Your task to perform on an android device: Play the latest video from the Huffington Post Image 0: 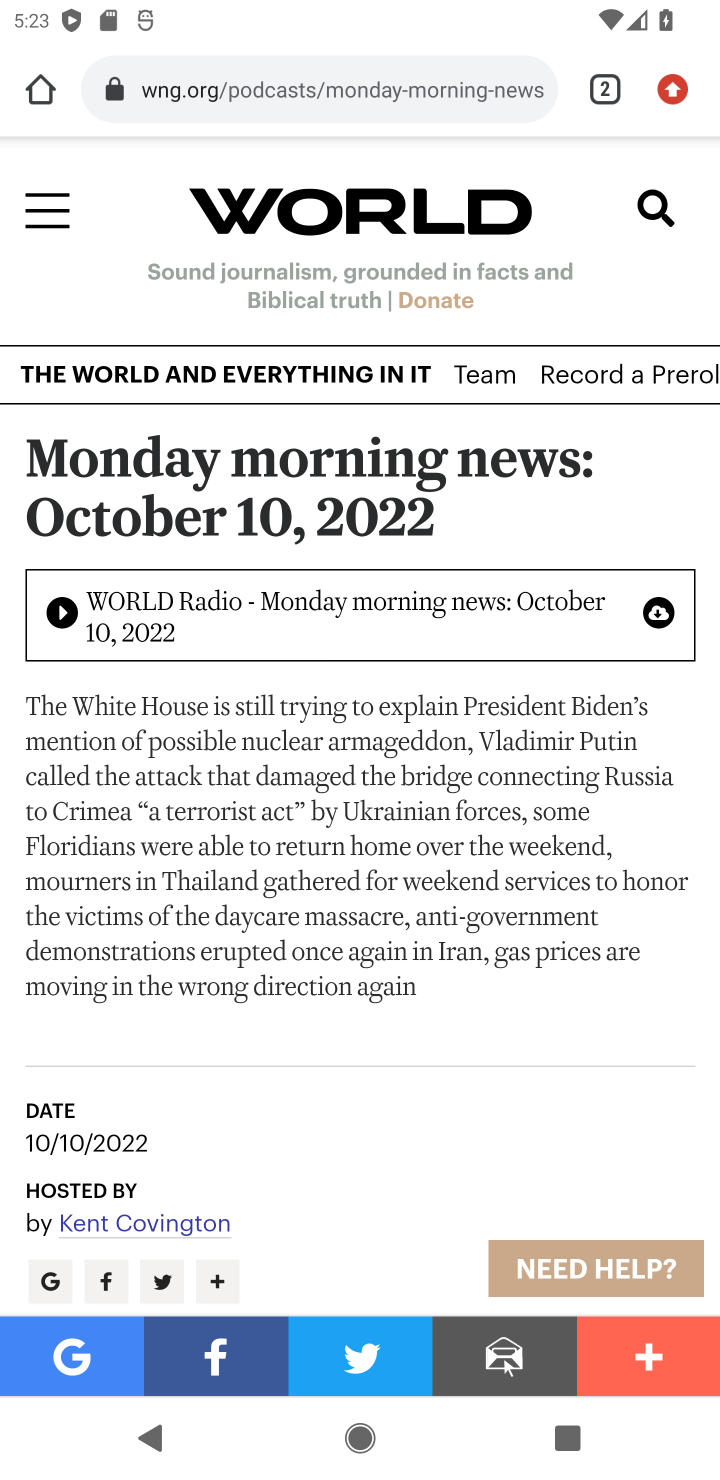
Step 0: press home button
Your task to perform on an android device: Play the latest video from the Huffington Post Image 1: 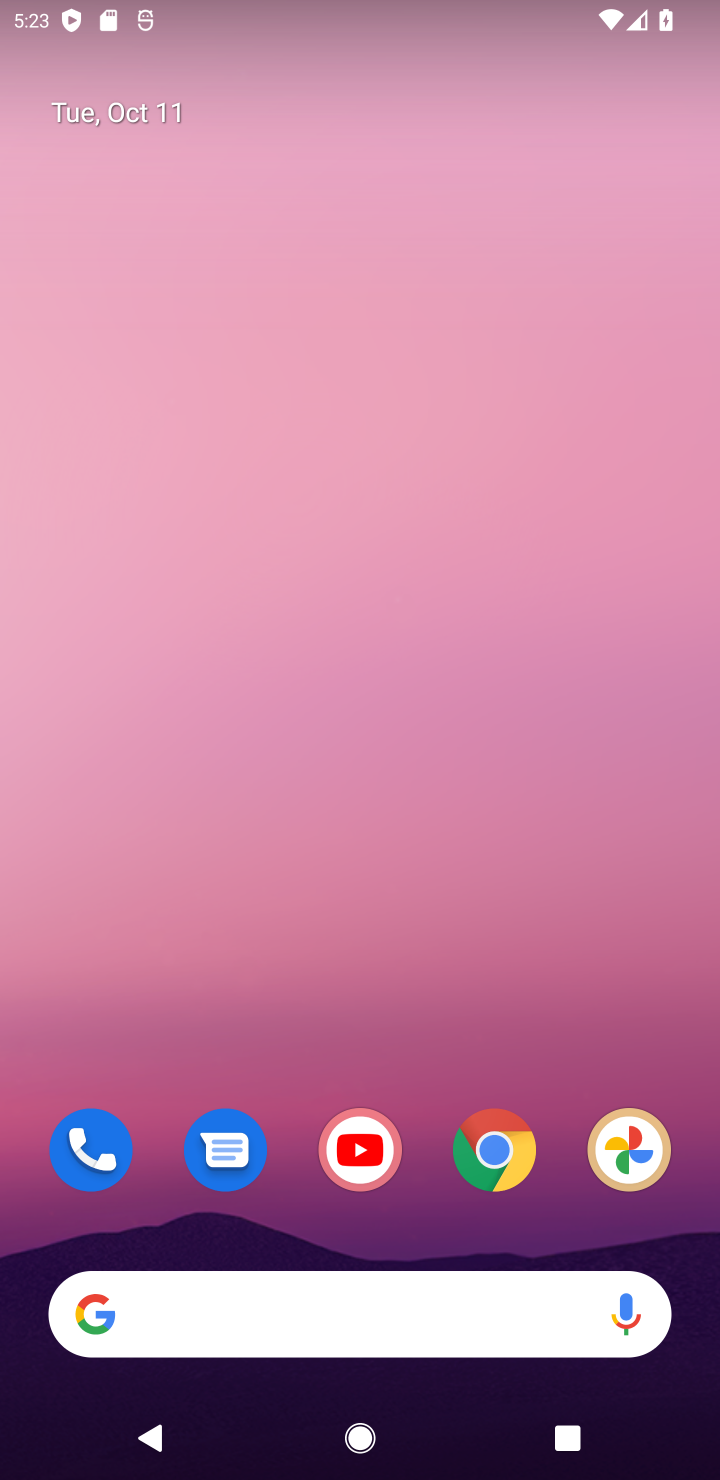
Step 1: click (362, 1157)
Your task to perform on an android device: Play the latest video from the Huffington Post Image 2: 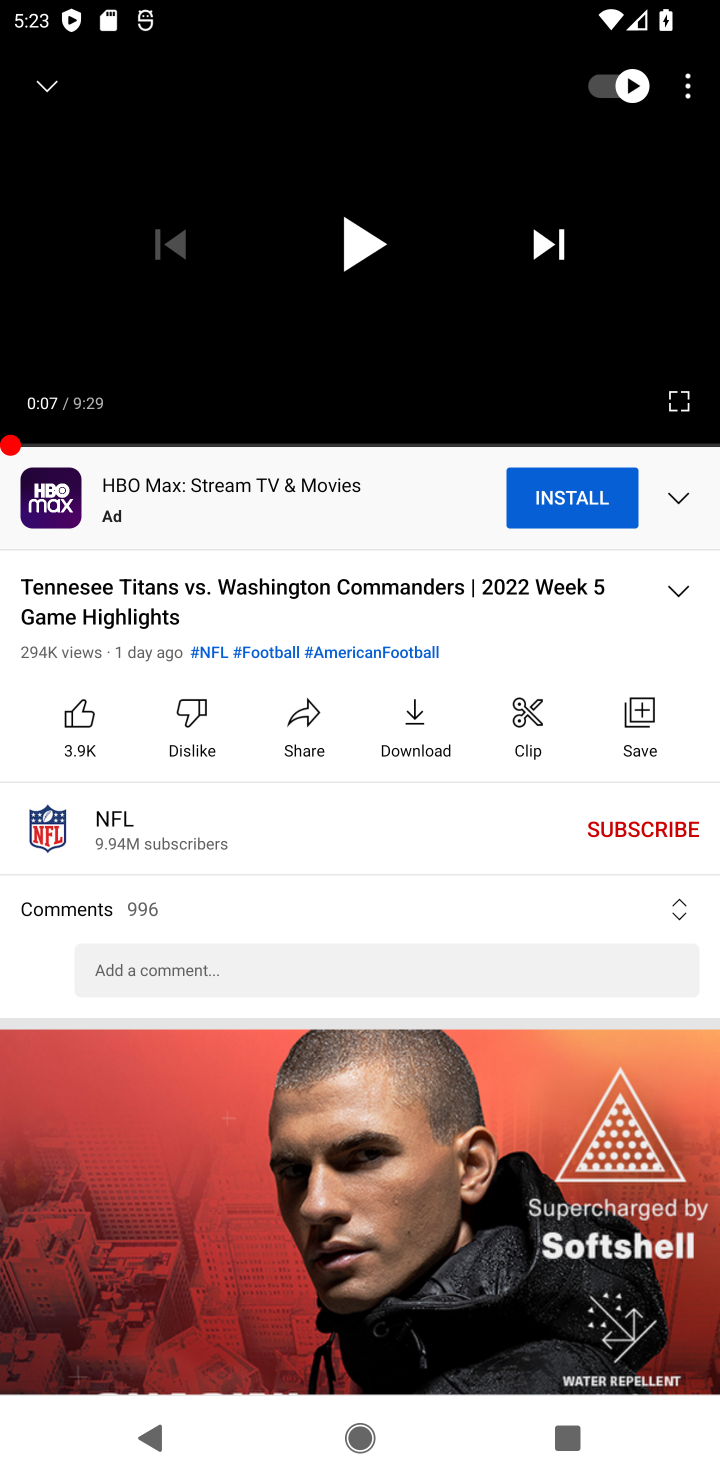
Step 2: click (28, 107)
Your task to perform on an android device: Play the latest video from the Huffington Post Image 3: 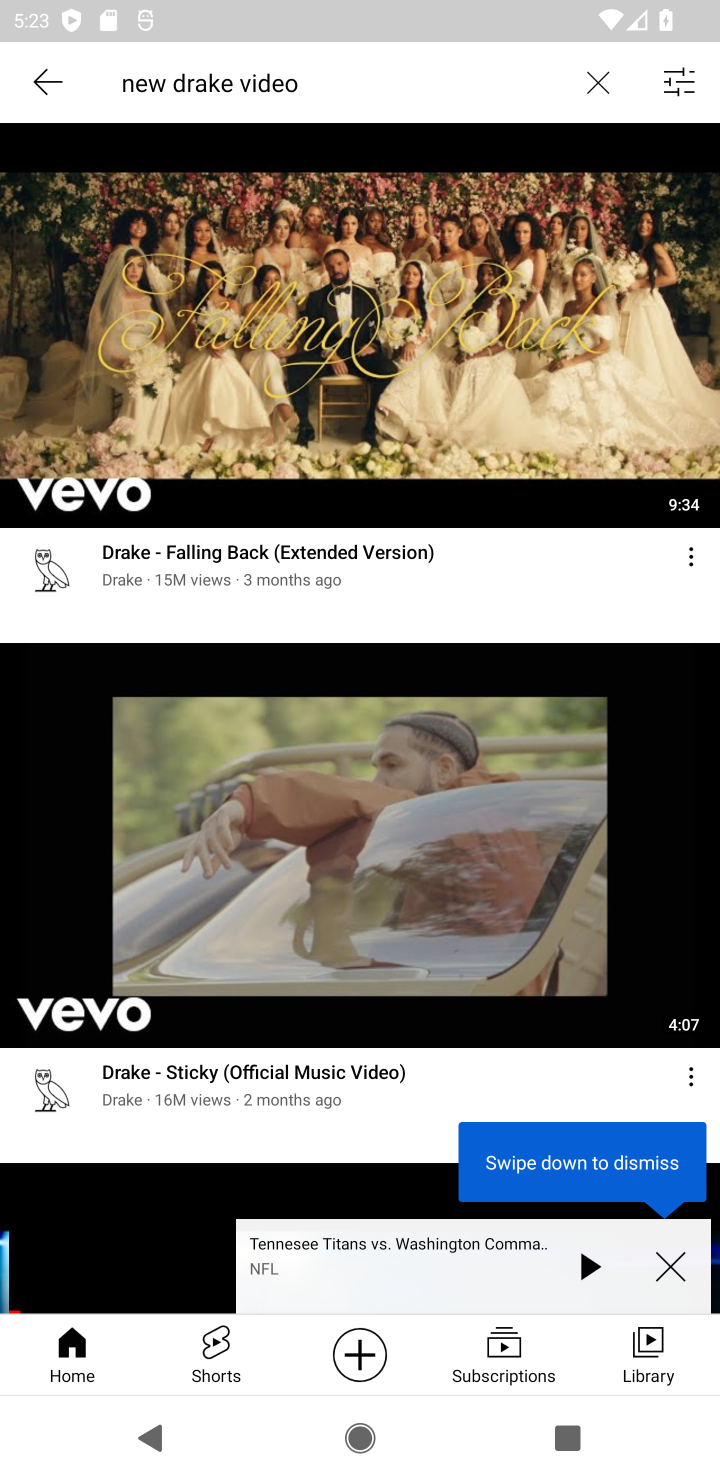
Step 3: click (584, 75)
Your task to perform on an android device: Play the latest video from the Huffington Post Image 4: 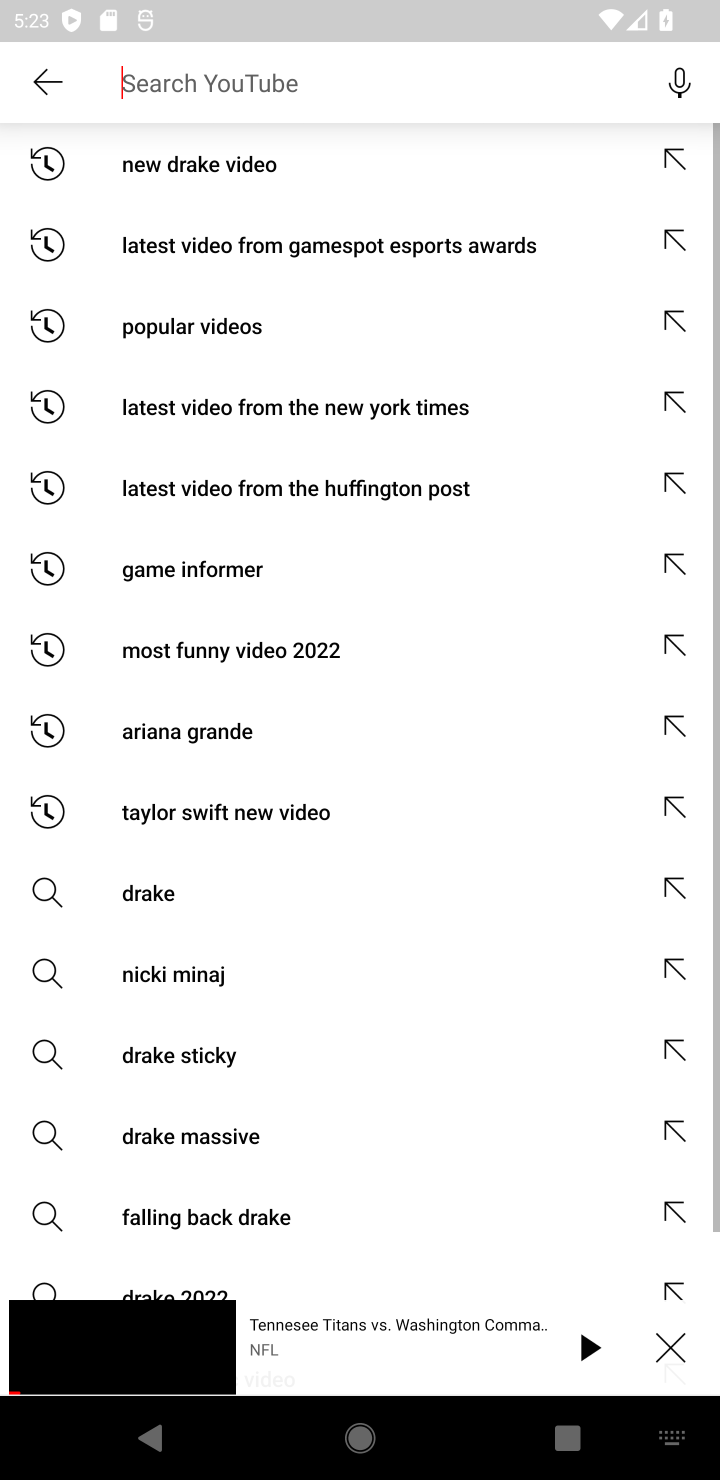
Step 4: click (281, 81)
Your task to perform on an android device: Play the latest video from the Huffington Post Image 5: 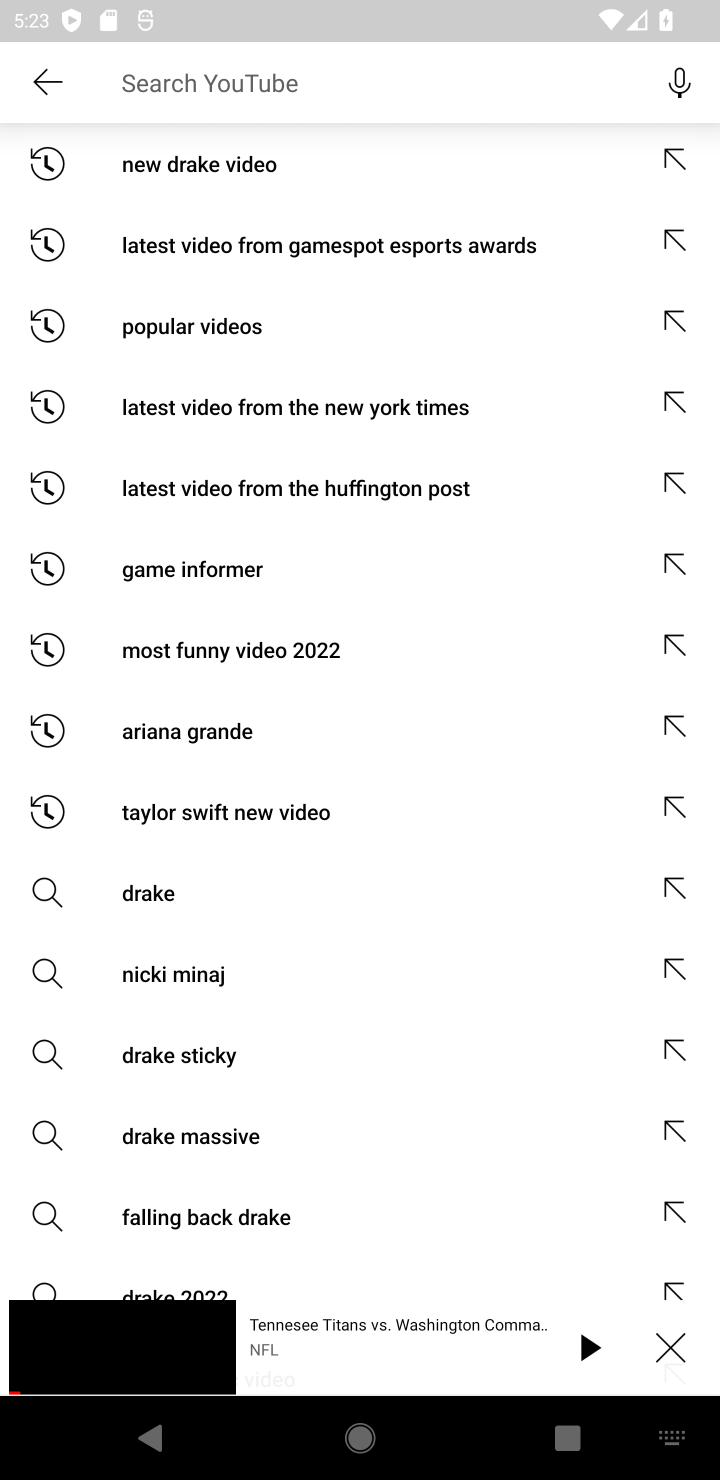
Step 5: type " latest video from the Huffington Post"
Your task to perform on an android device: Play the latest video from the Huffington Post Image 6: 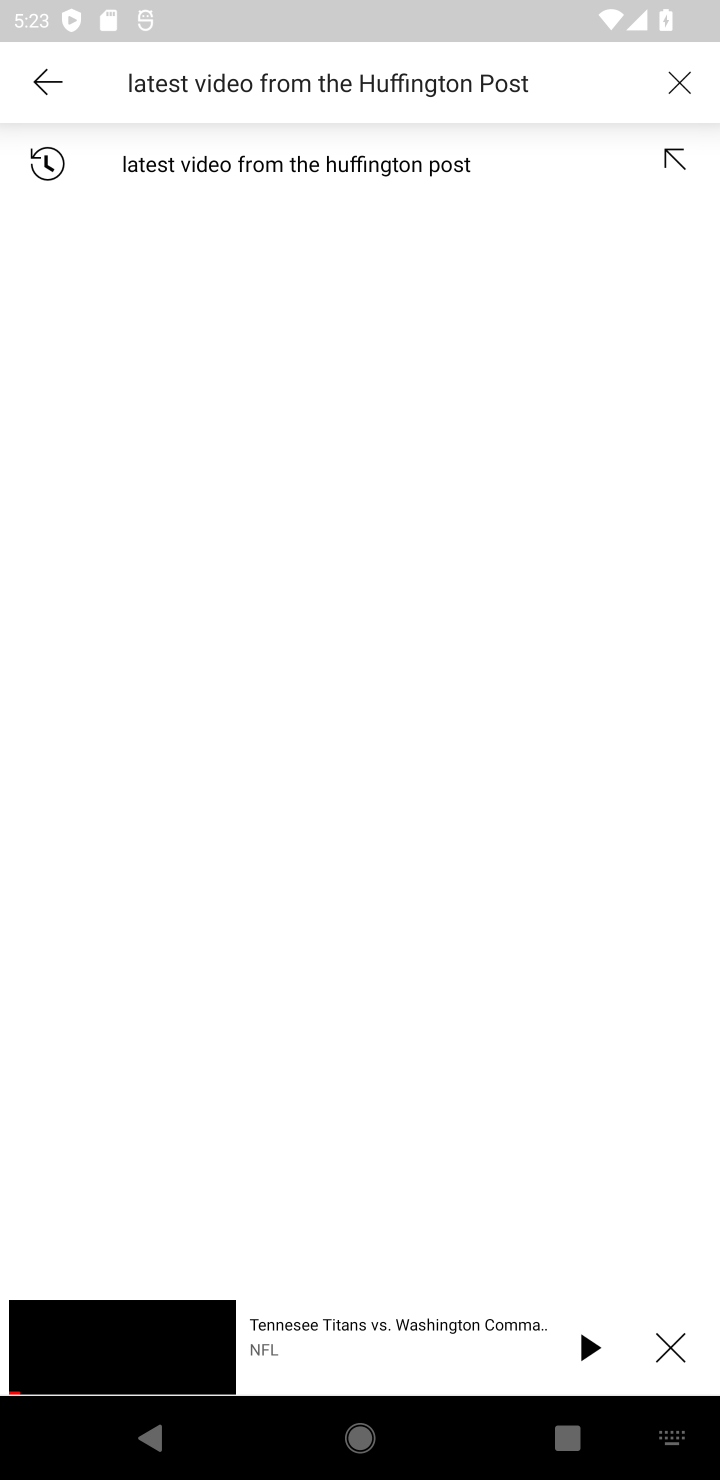
Step 6: click (240, 164)
Your task to perform on an android device: Play the latest video from the Huffington Post Image 7: 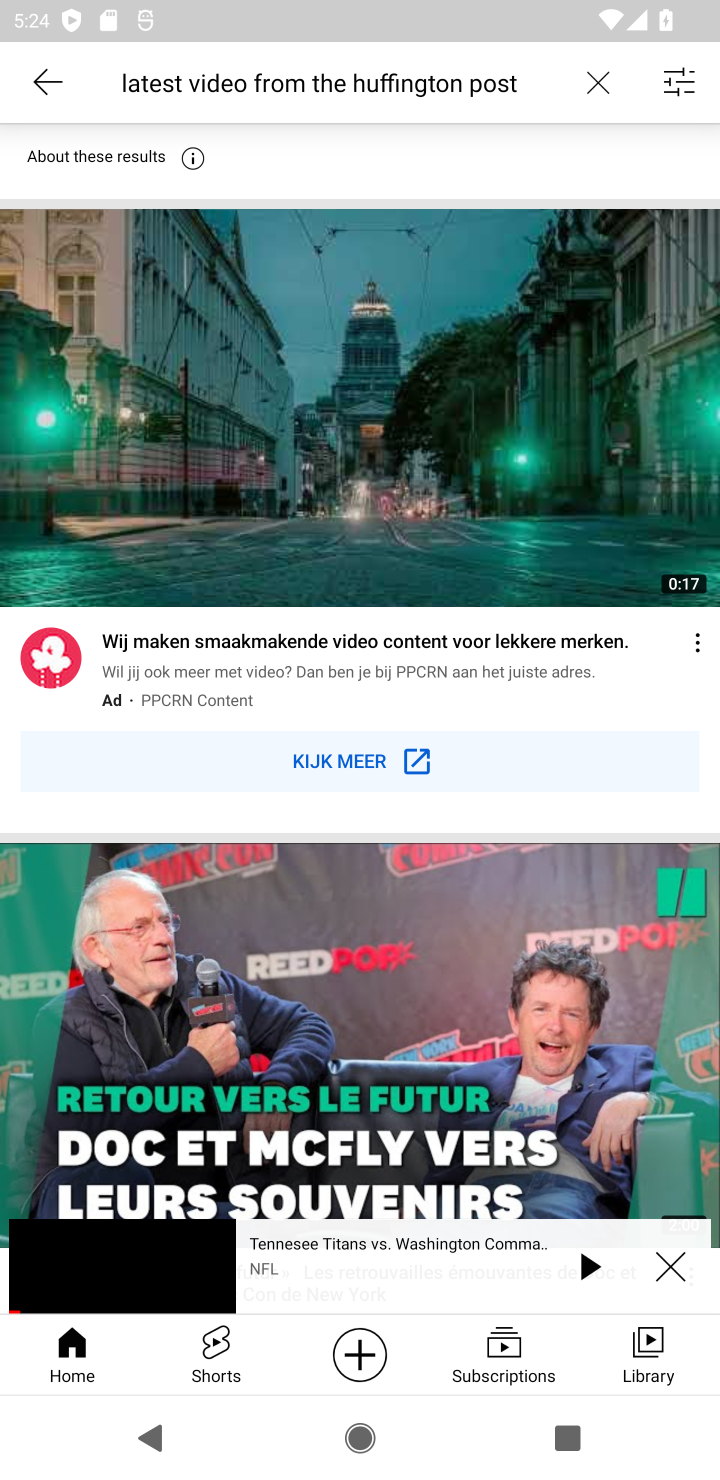
Step 7: drag from (348, 938) to (371, 606)
Your task to perform on an android device: Play the latest video from the Huffington Post Image 8: 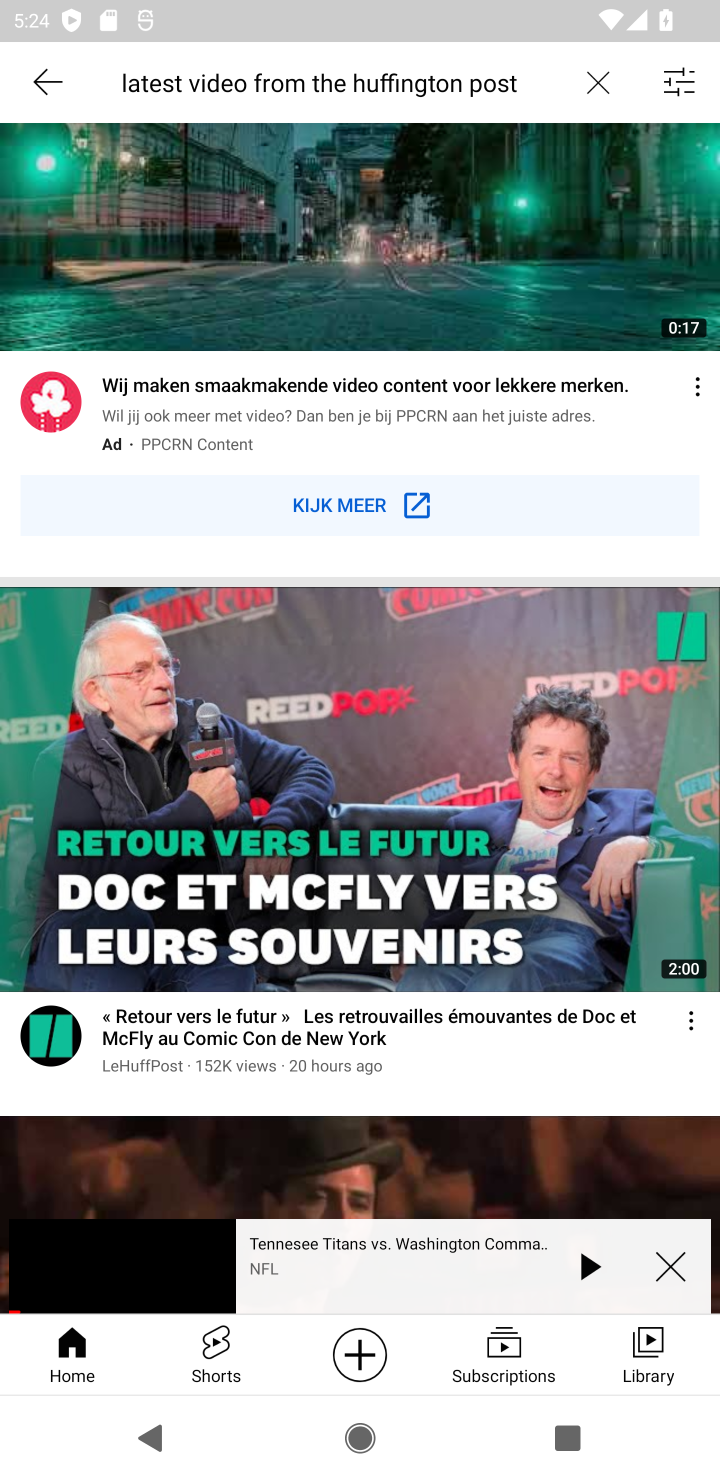
Step 8: drag from (293, 723) to (353, 542)
Your task to perform on an android device: Play the latest video from the Huffington Post Image 9: 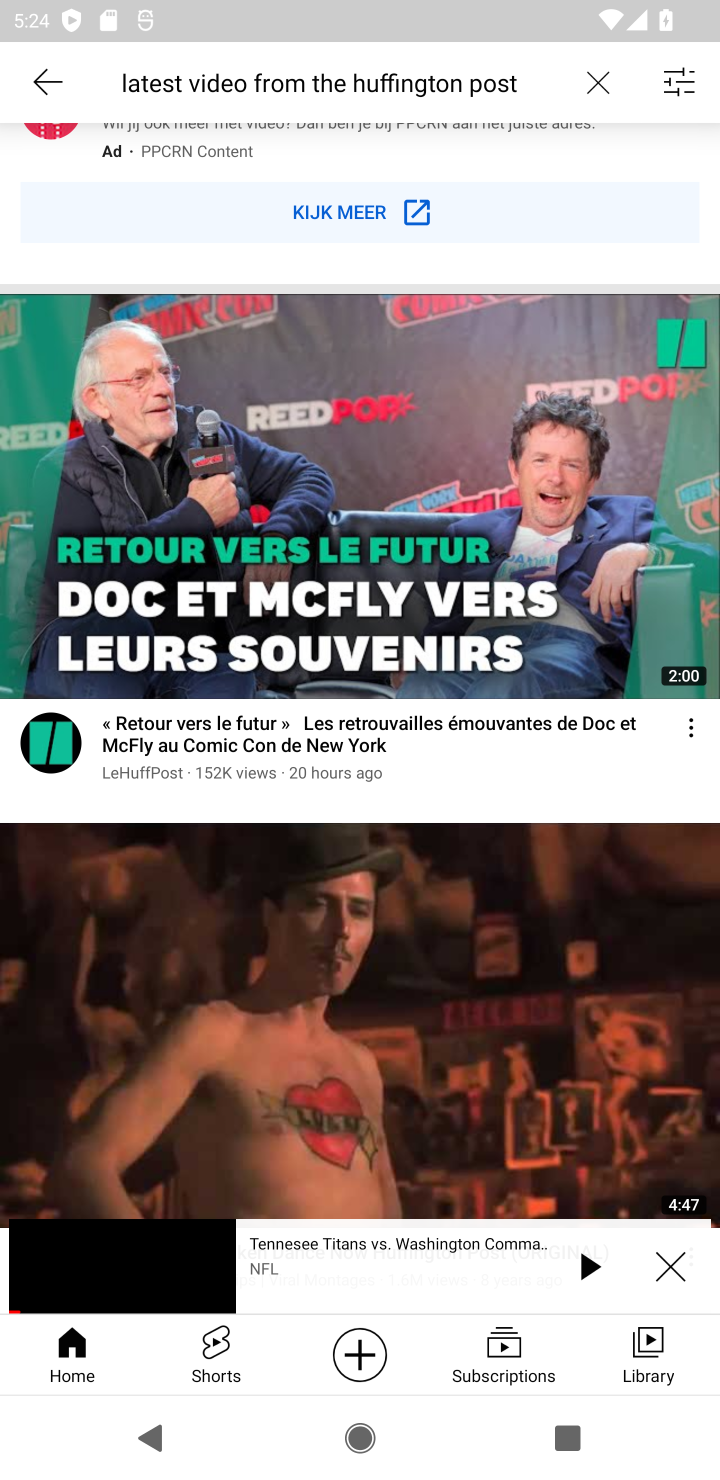
Step 9: click (330, 564)
Your task to perform on an android device: Play the latest video from the Huffington Post Image 10: 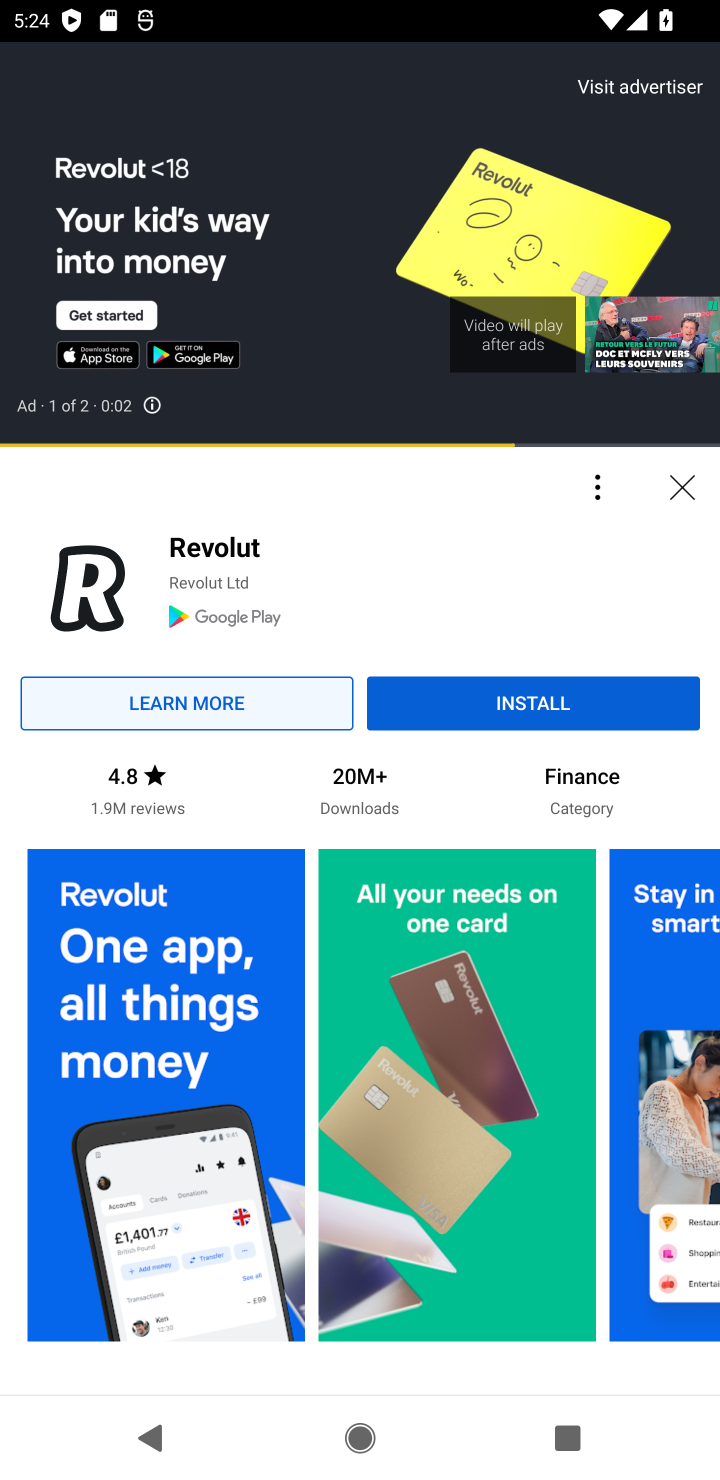
Step 10: click (676, 490)
Your task to perform on an android device: Play the latest video from the Huffington Post Image 11: 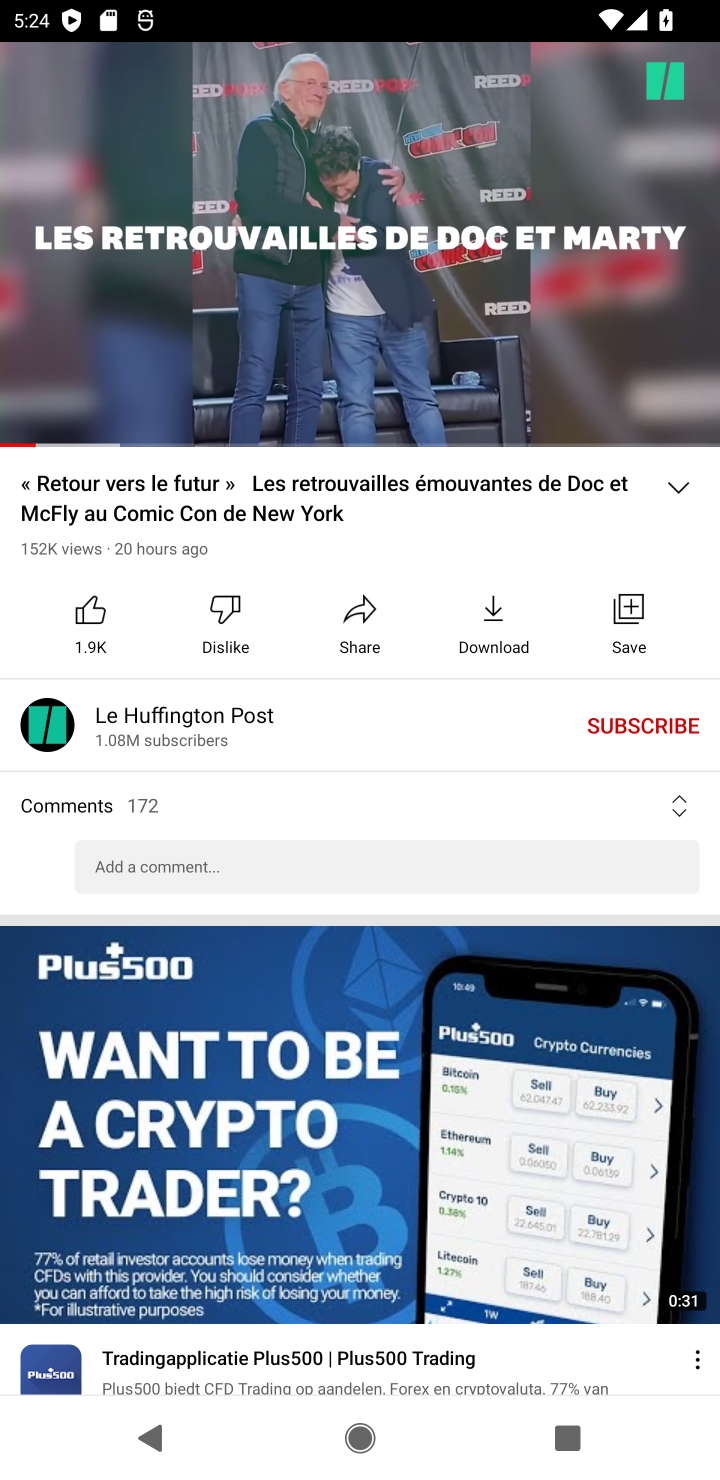
Step 11: click (371, 292)
Your task to perform on an android device: Play the latest video from the Huffington Post Image 12: 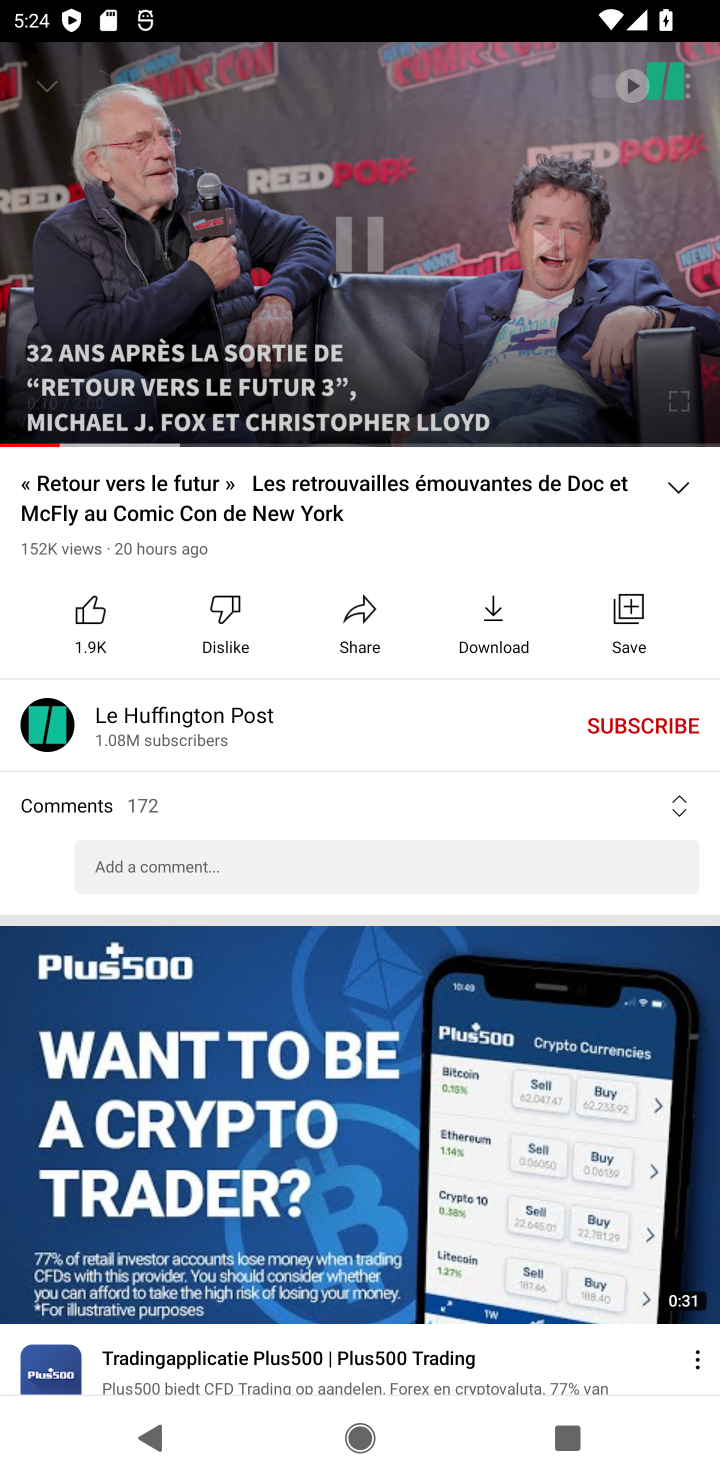
Step 12: click (352, 238)
Your task to perform on an android device: Play the latest video from the Huffington Post Image 13: 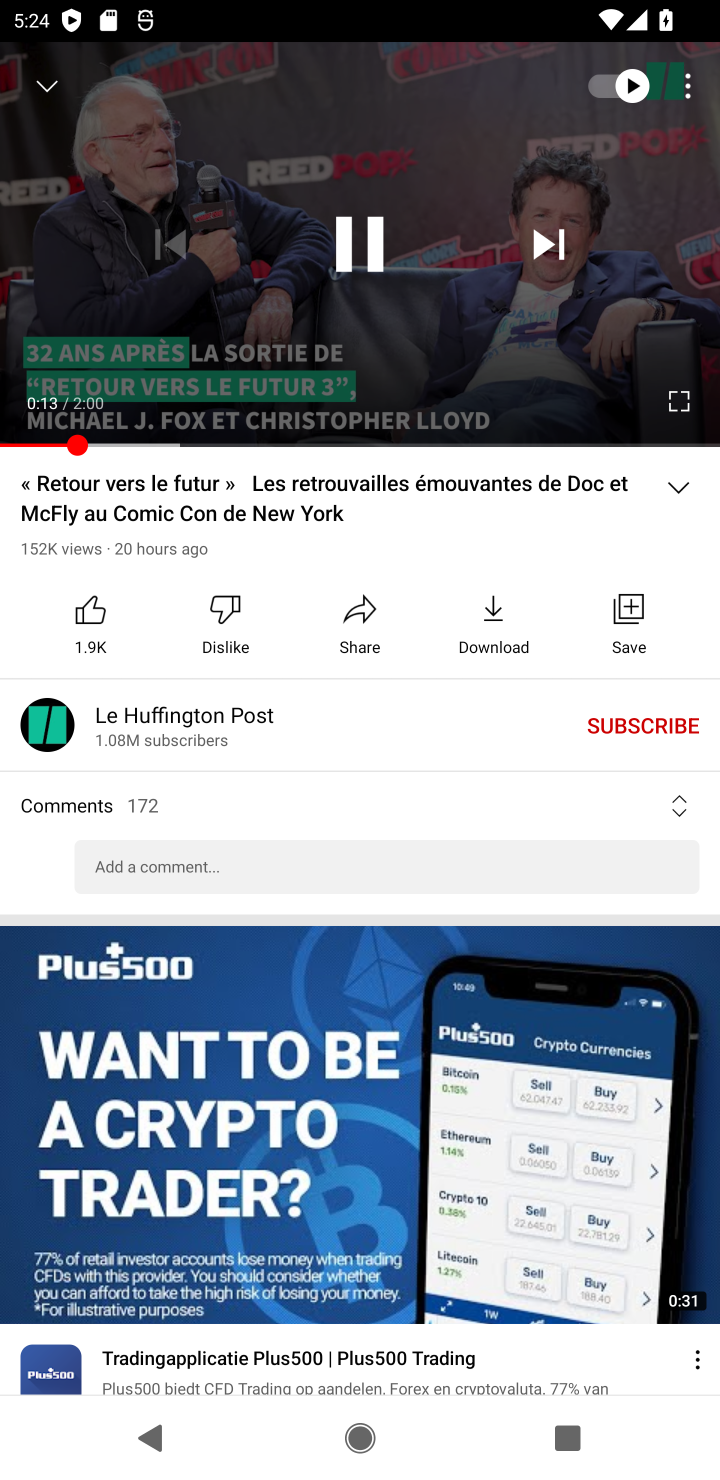
Step 13: click (359, 264)
Your task to perform on an android device: Play the latest video from the Huffington Post Image 14: 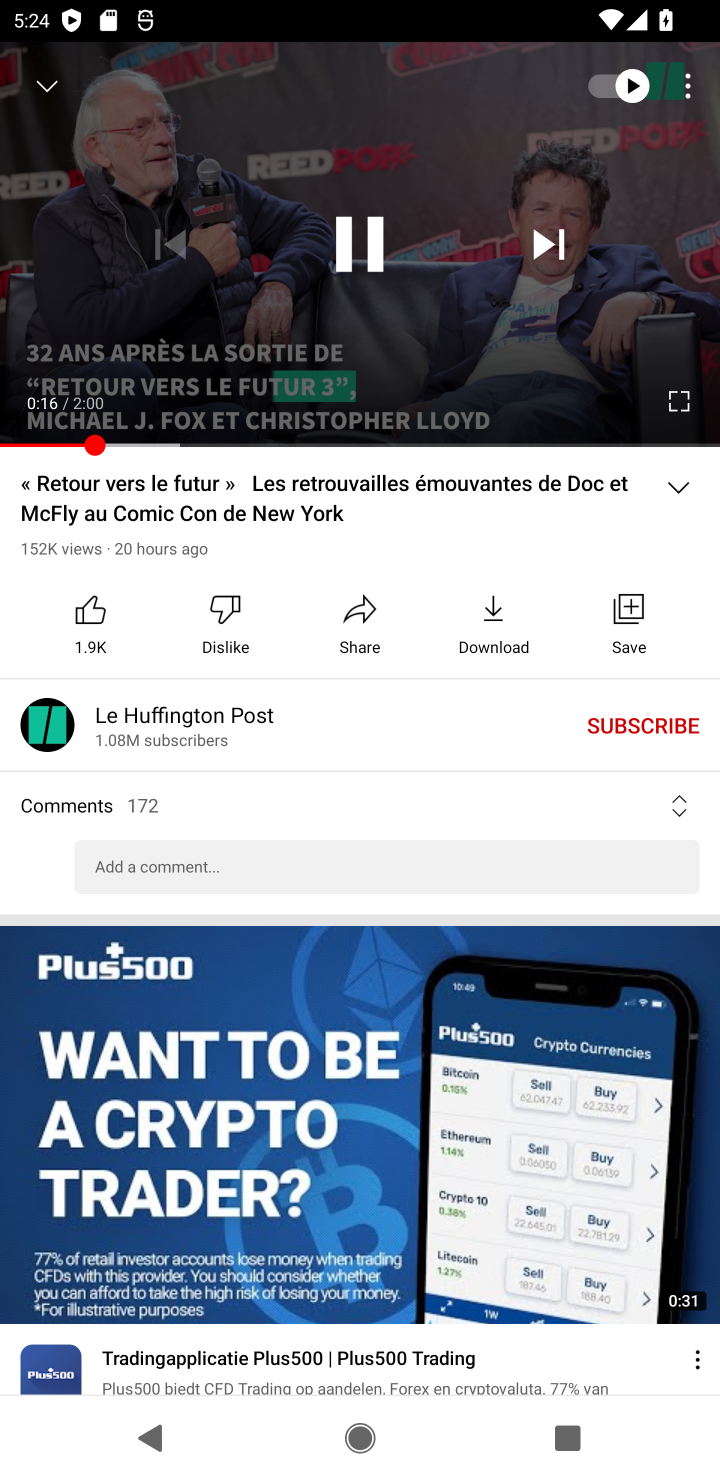
Step 14: click (359, 264)
Your task to perform on an android device: Play the latest video from the Huffington Post Image 15: 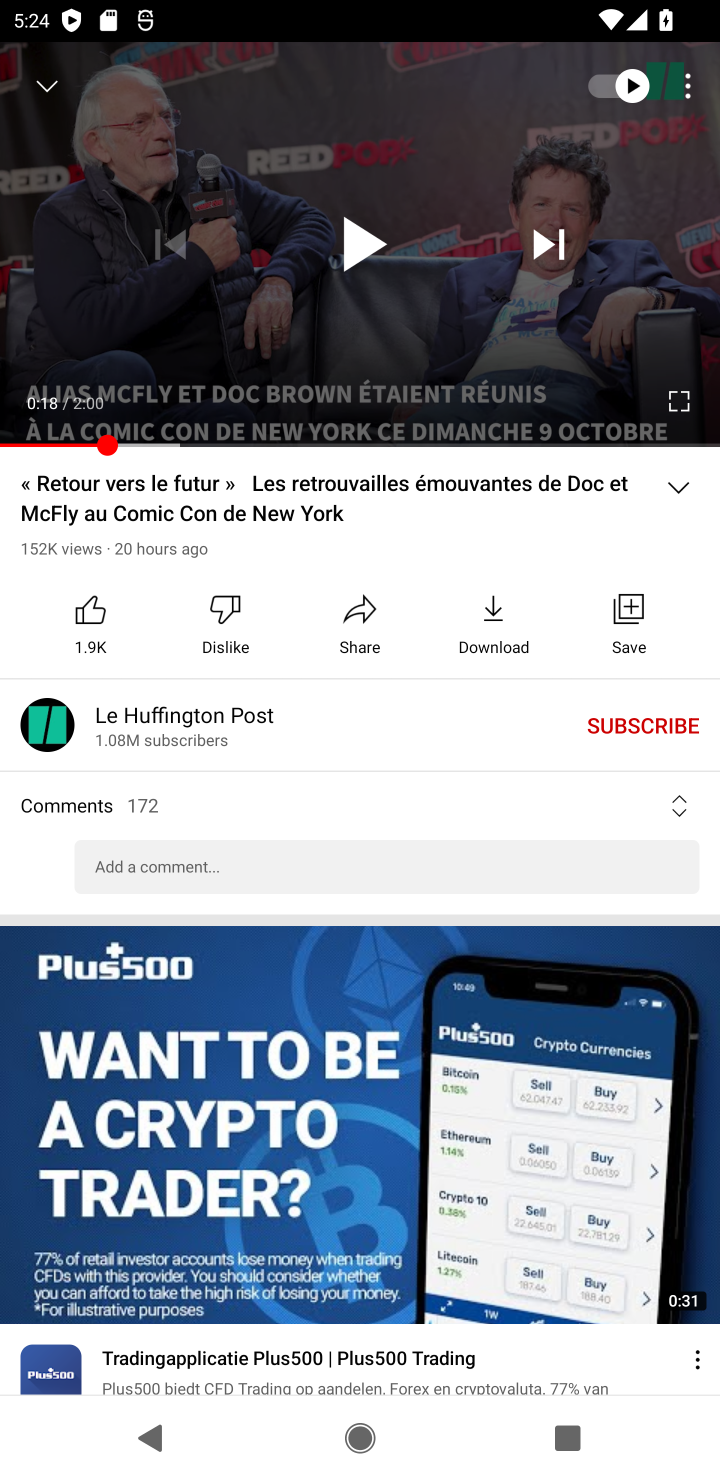
Step 15: task complete